Your task to perform on an android device: Open display settings Image 0: 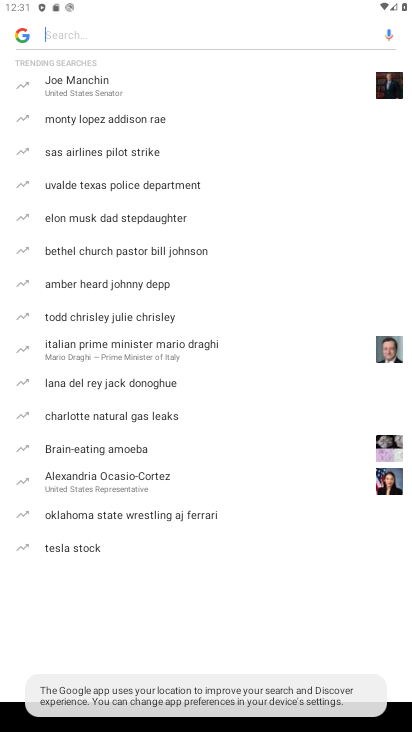
Step 0: press home button
Your task to perform on an android device: Open display settings Image 1: 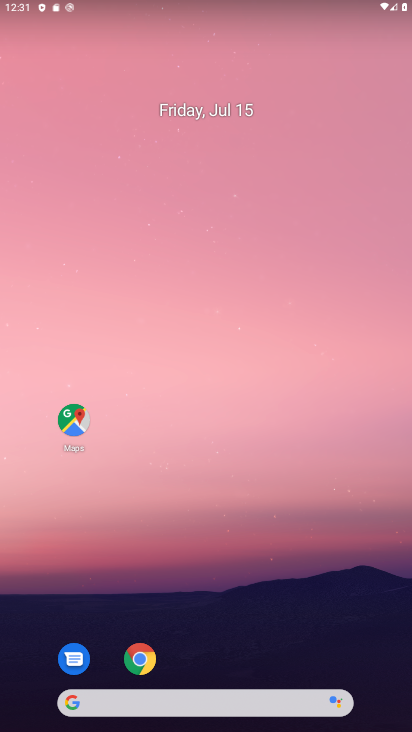
Step 1: drag from (242, 667) to (168, 105)
Your task to perform on an android device: Open display settings Image 2: 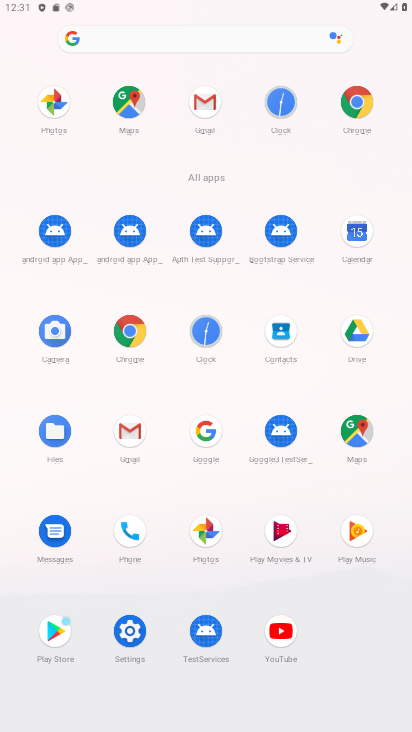
Step 2: click (120, 644)
Your task to perform on an android device: Open display settings Image 3: 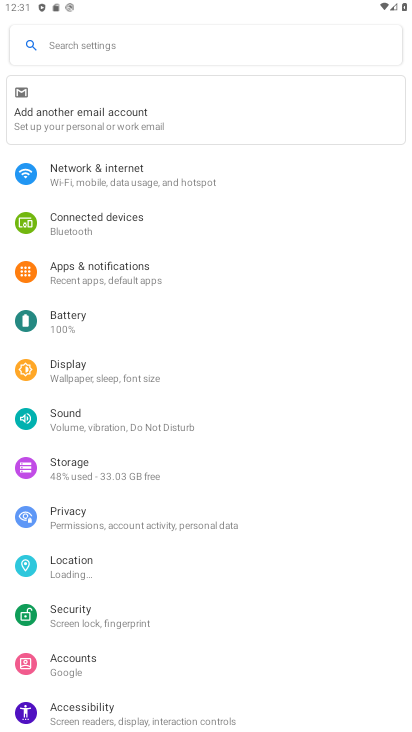
Step 3: click (190, 372)
Your task to perform on an android device: Open display settings Image 4: 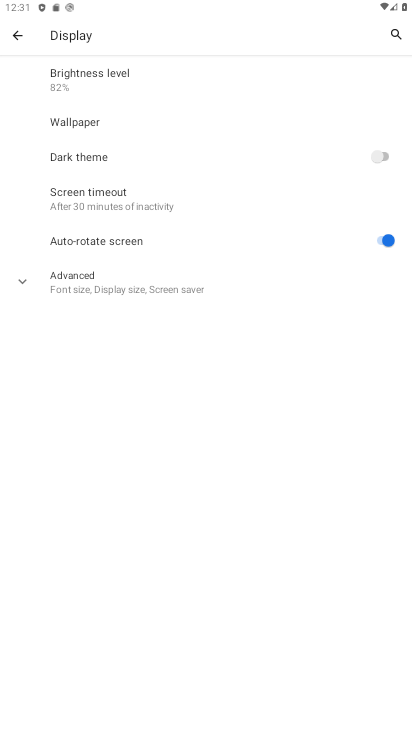
Step 4: task complete